Your task to perform on an android device: Search for pizza restaurants on Maps Image 0: 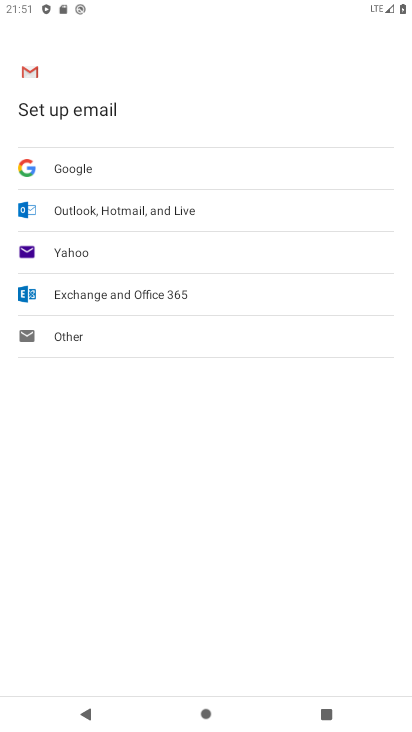
Step 0: press home button
Your task to perform on an android device: Search for pizza restaurants on Maps Image 1: 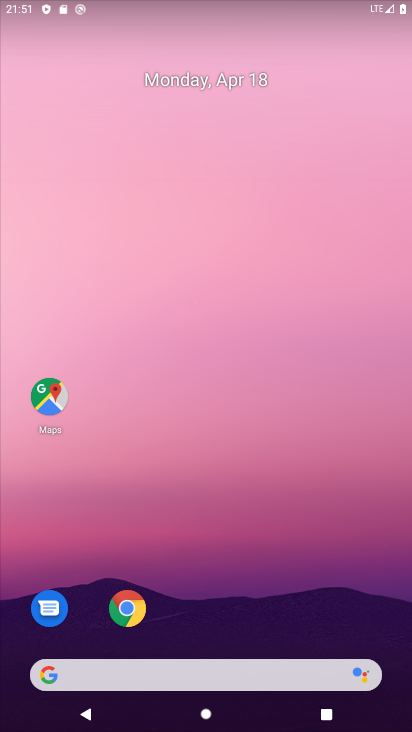
Step 1: click (50, 397)
Your task to perform on an android device: Search for pizza restaurants on Maps Image 2: 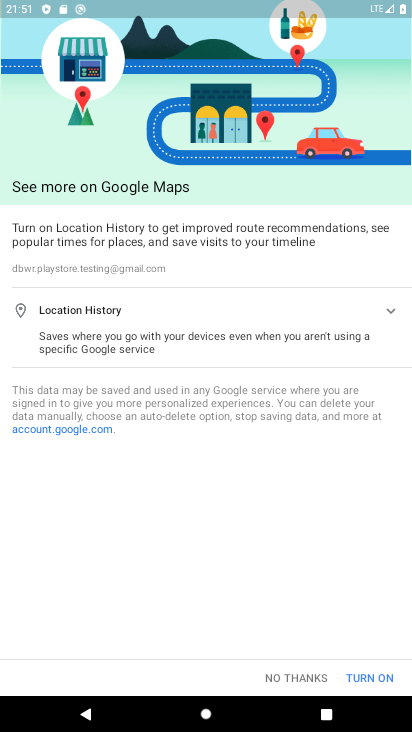
Step 2: click (310, 675)
Your task to perform on an android device: Search for pizza restaurants on Maps Image 3: 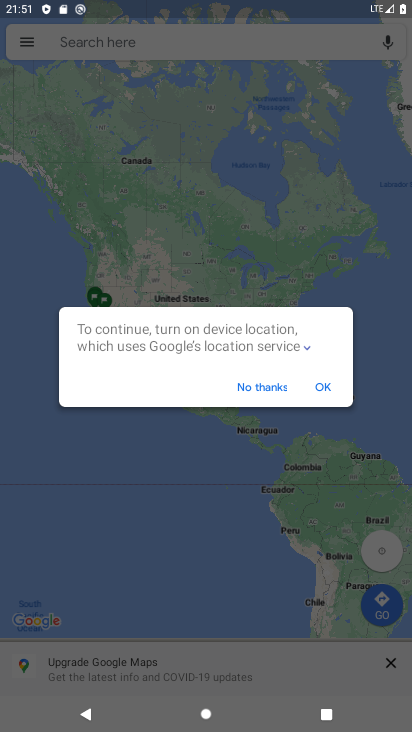
Step 3: click (260, 386)
Your task to perform on an android device: Search for pizza restaurants on Maps Image 4: 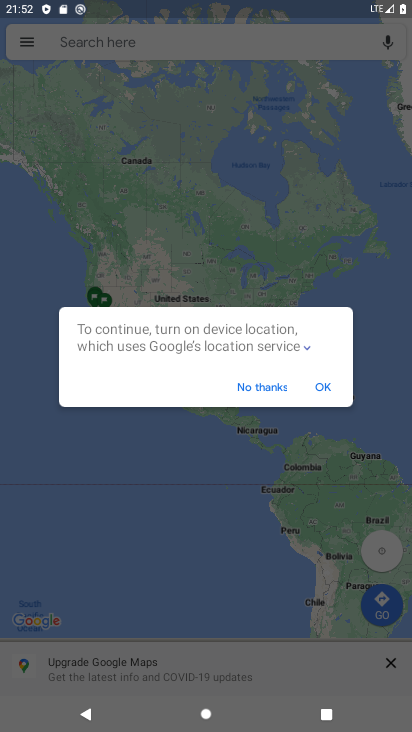
Step 4: click (253, 380)
Your task to perform on an android device: Search for pizza restaurants on Maps Image 5: 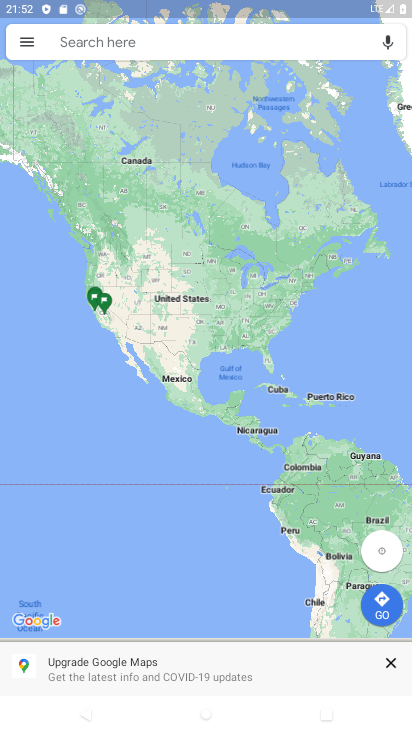
Step 5: click (161, 48)
Your task to perform on an android device: Search for pizza restaurants on Maps Image 6: 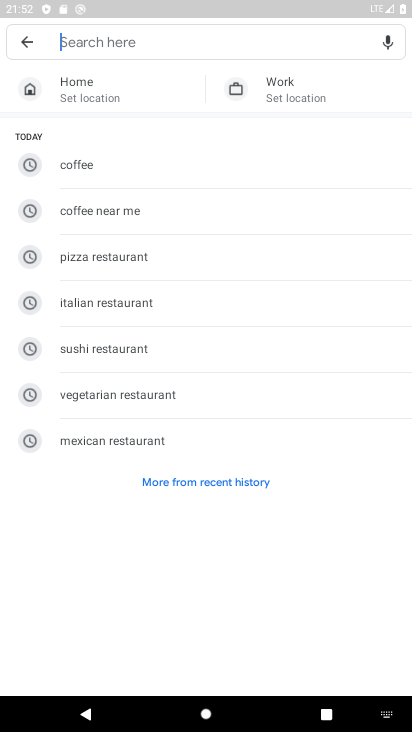
Step 6: type "pizza restaurants"
Your task to perform on an android device: Search for pizza restaurants on Maps Image 7: 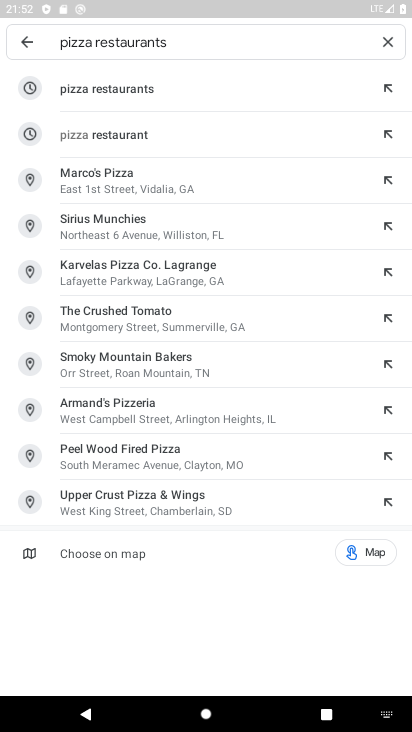
Step 7: click (212, 98)
Your task to perform on an android device: Search for pizza restaurants on Maps Image 8: 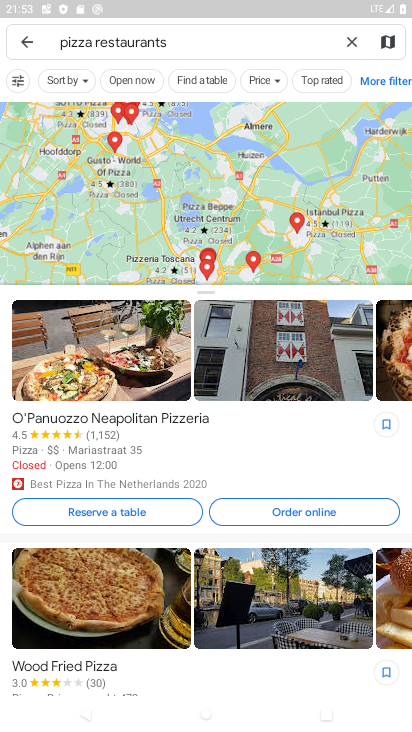
Step 8: task complete